Your task to perform on an android device: What is the recent news? Image 0: 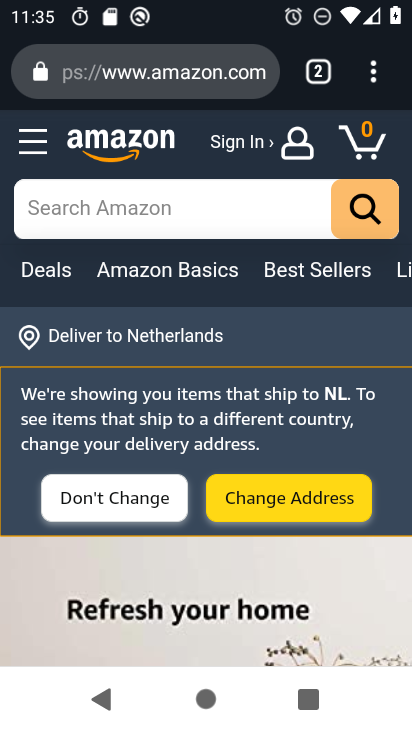
Step 0: press home button
Your task to perform on an android device: What is the recent news? Image 1: 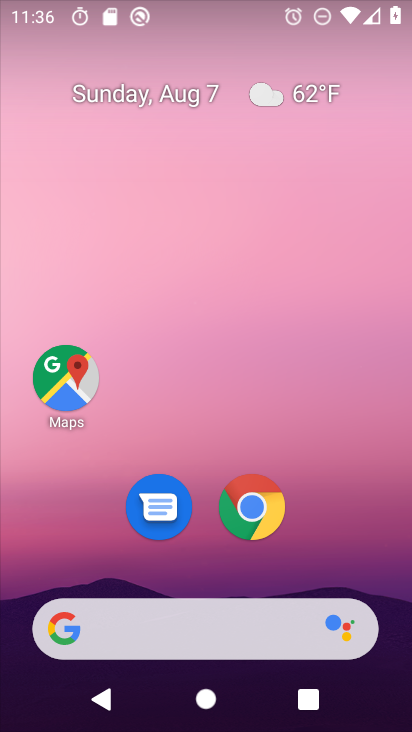
Step 1: drag from (354, 550) to (335, 53)
Your task to perform on an android device: What is the recent news? Image 2: 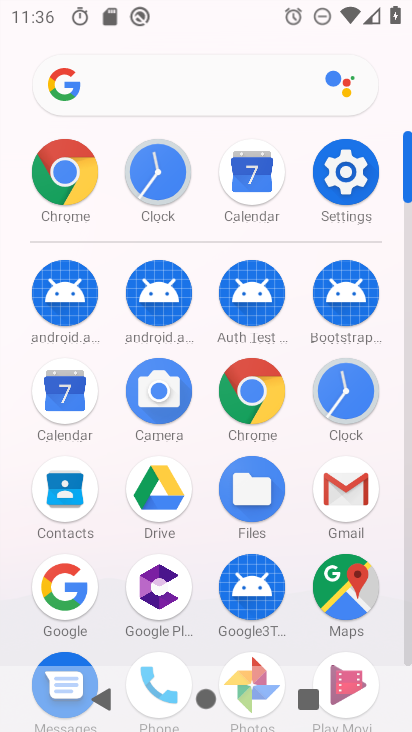
Step 2: click (238, 397)
Your task to perform on an android device: What is the recent news? Image 3: 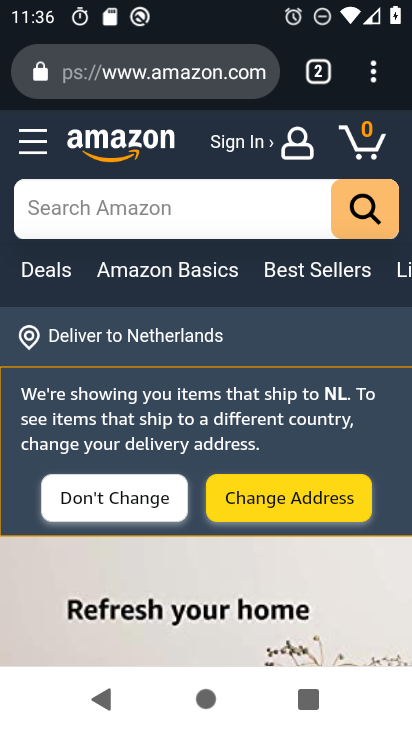
Step 3: click (225, 68)
Your task to perform on an android device: What is the recent news? Image 4: 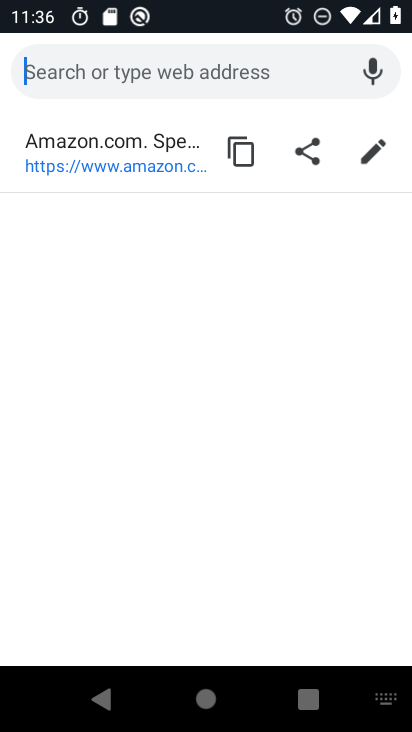
Step 4: type "news"
Your task to perform on an android device: What is the recent news? Image 5: 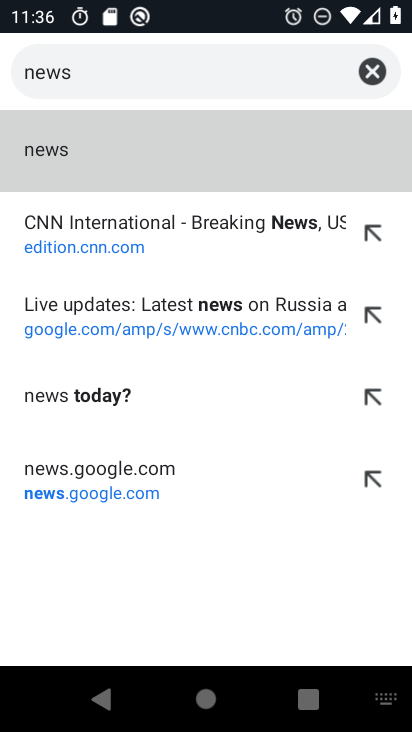
Step 5: click (40, 162)
Your task to perform on an android device: What is the recent news? Image 6: 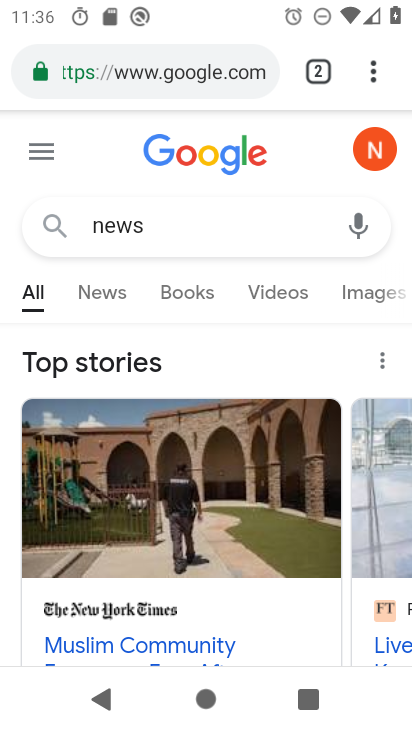
Step 6: drag from (267, 376) to (251, 88)
Your task to perform on an android device: What is the recent news? Image 7: 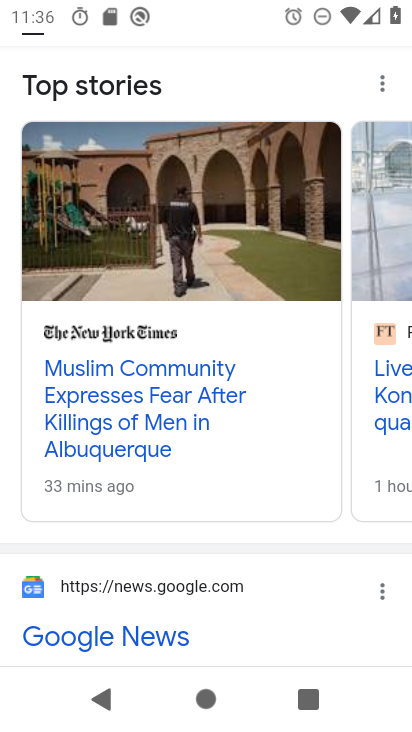
Step 7: click (171, 640)
Your task to perform on an android device: What is the recent news? Image 8: 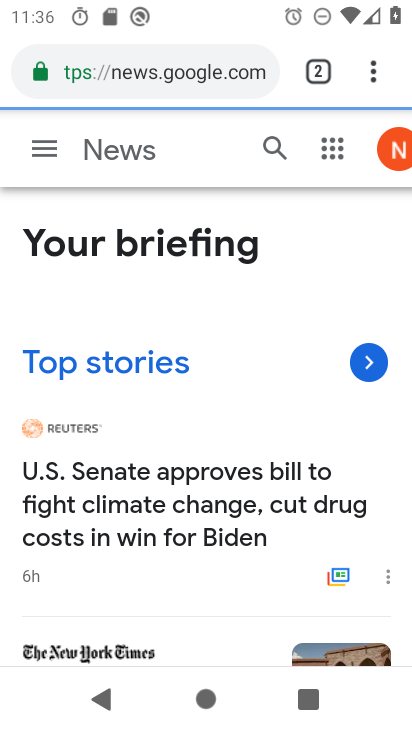
Step 8: task complete